Your task to perform on an android device: Is it going to rain tomorrow? Image 0: 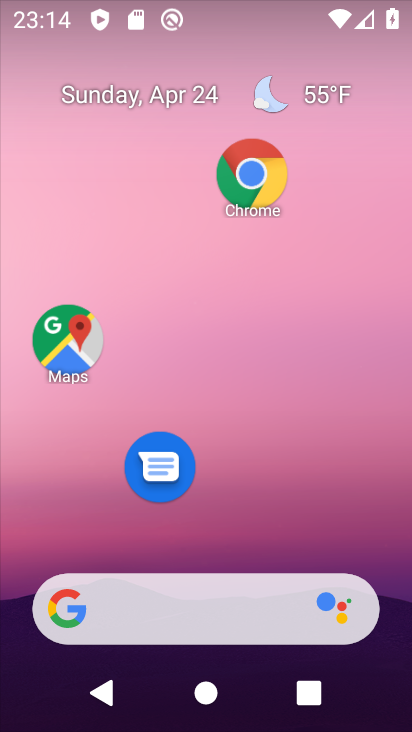
Step 0: drag from (249, 351) to (251, 14)
Your task to perform on an android device: Is it going to rain tomorrow? Image 1: 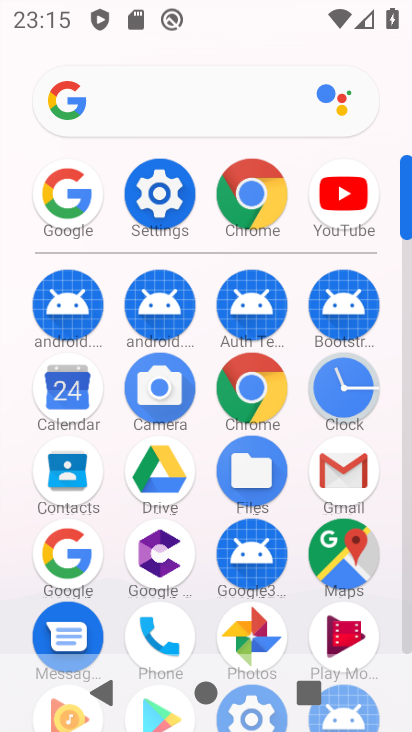
Step 1: click (70, 199)
Your task to perform on an android device: Is it going to rain tomorrow? Image 2: 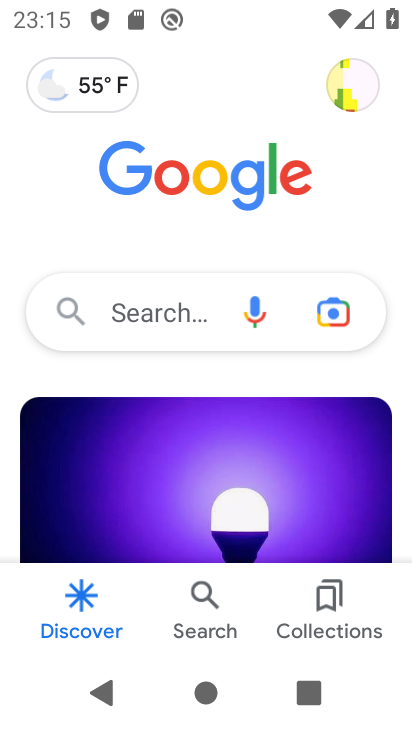
Step 2: click (155, 313)
Your task to perform on an android device: Is it going to rain tomorrow? Image 3: 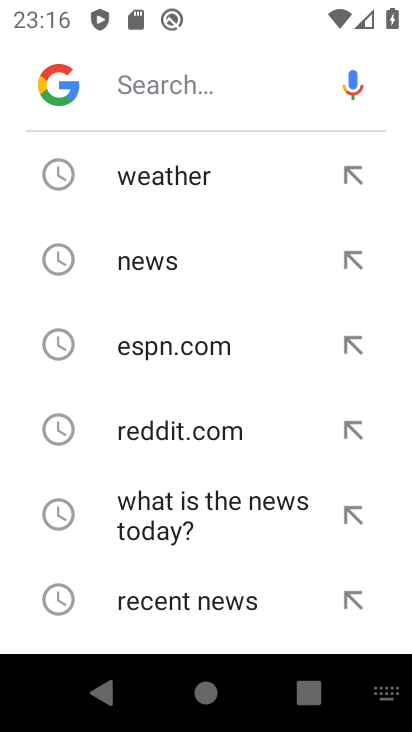
Step 3: type "is it going to rain tomorrow"
Your task to perform on an android device: Is it going to rain tomorrow? Image 4: 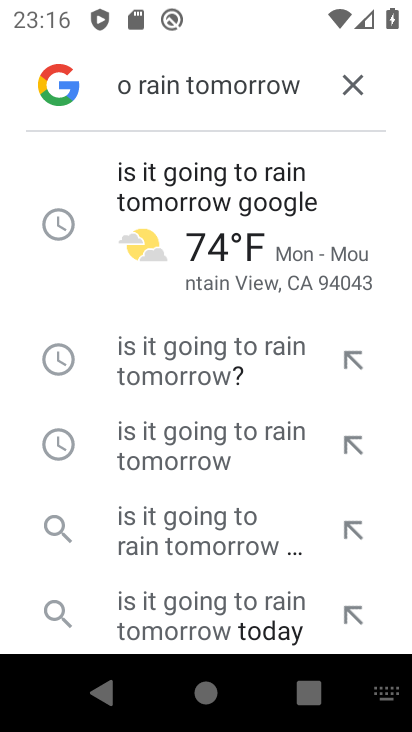
Step 4: click (275, 199)
Your task to perform on an android device: Is it going to rain tomorrow? Image 5: 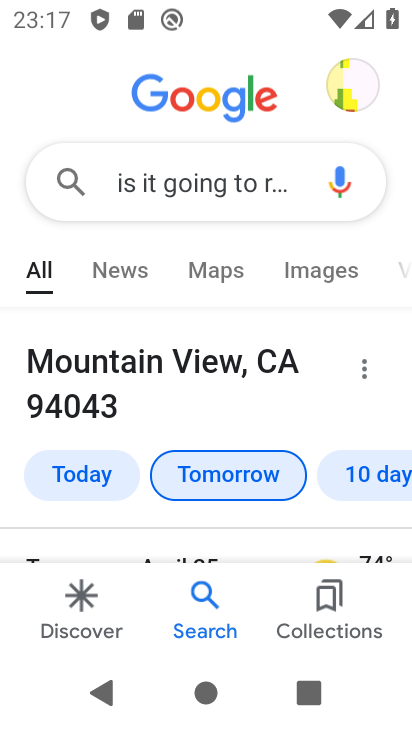
Step 5: task complete